Your task to perform on an android device: delete the emails in spam in the gmail app Image 0: 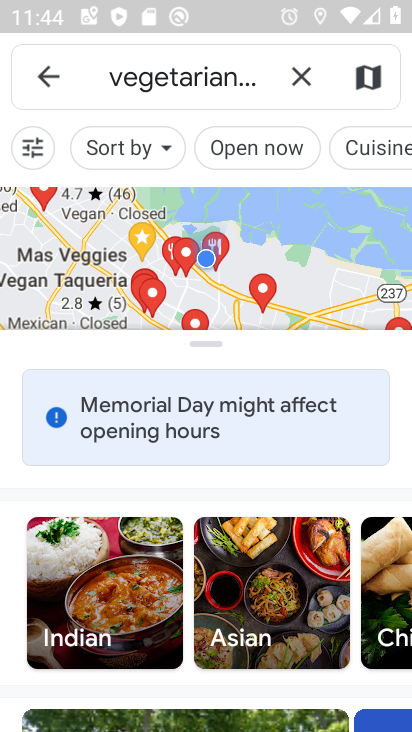
Step 0: press home button
Your task to perform on an android device: delete the emails in spam in the gmail app Image 1: 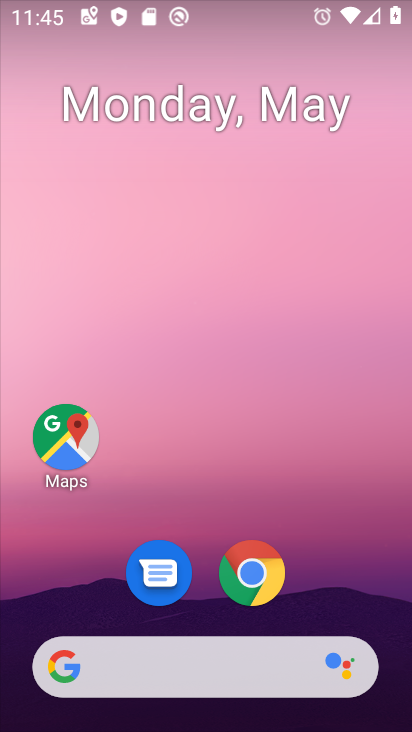
Step 1: drag from (132, 726) to (108, 63)
Your task to perform on an android device: delete the emails in spam in the gmail app Image 2: 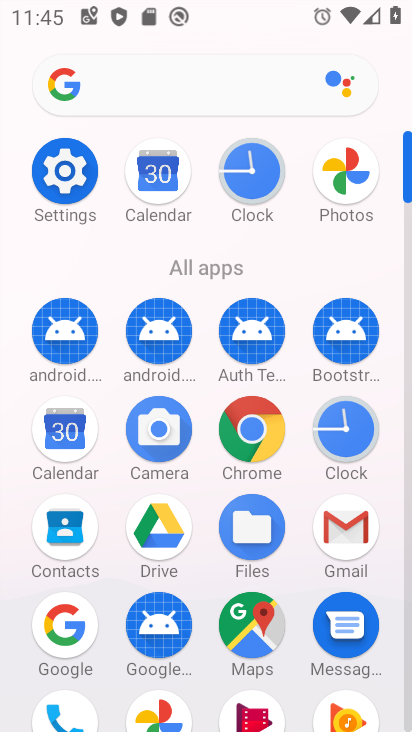
Step 2: click (331, 544)
Your task to perform on an android device: delete the emails in spam in the gmail app Image 3: 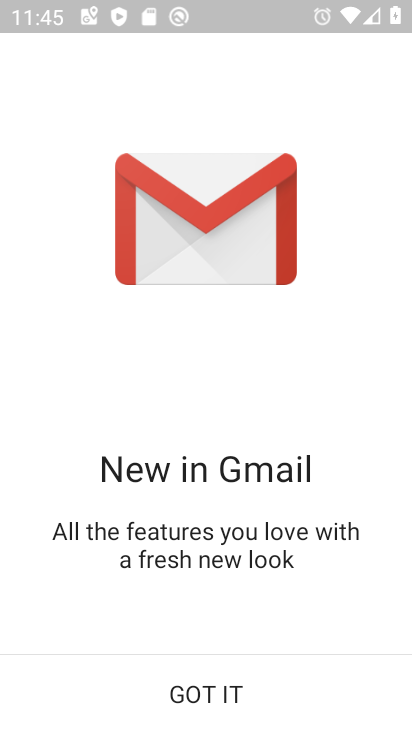
Step 3: click (176, 683)
Your task to perform on an android device: delete the emails in spam in the gmail app Image 4: 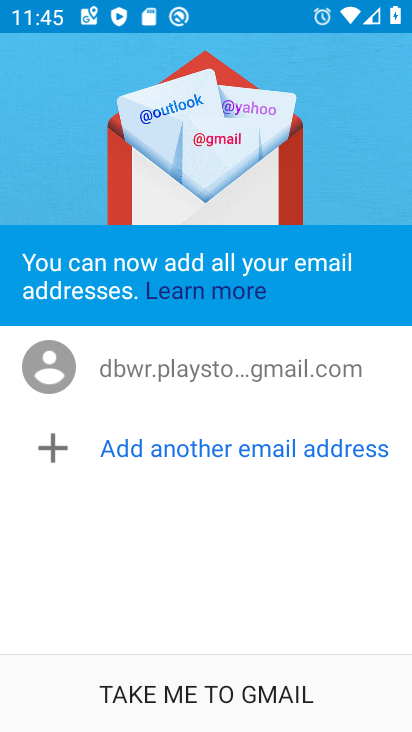
Step 4: click (178, 683)
Your task to perform on an android device: delete the emails in spam in the gmail app Image 5: 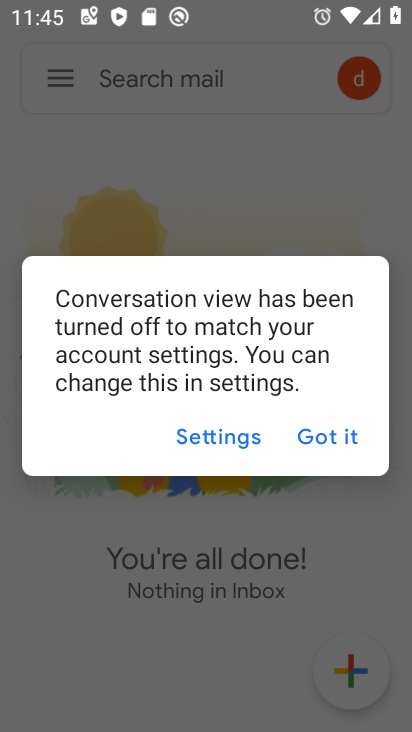
Step 5: click (338, 432)
Your task to perform on an android device: delete the emails in spam in the gmail app Image 6: 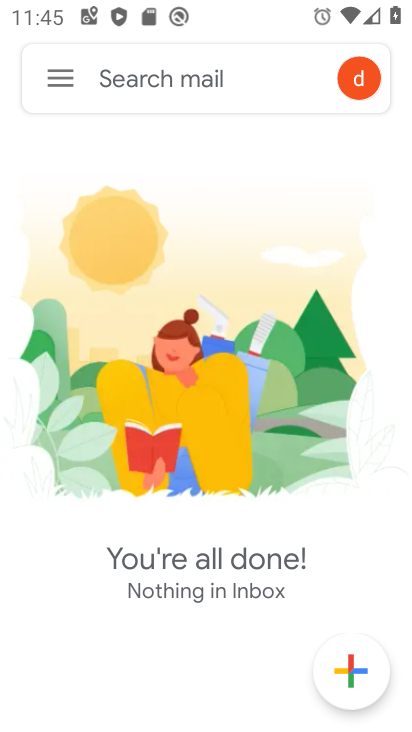
Step 6: click (58, 87)
Your task to perform on an android device: delete the emails in spam in the gmail app Image 7: 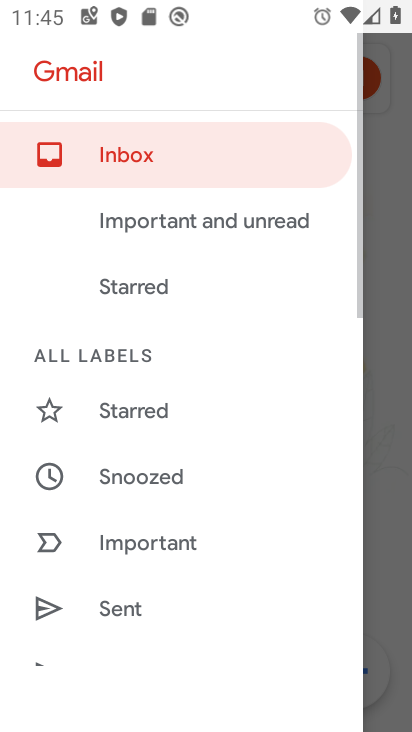
Step 7: drag from (123, 591) to (195, 267)
Your task to perform on an android device: delete the emails in spam in the gmail app Image 8: 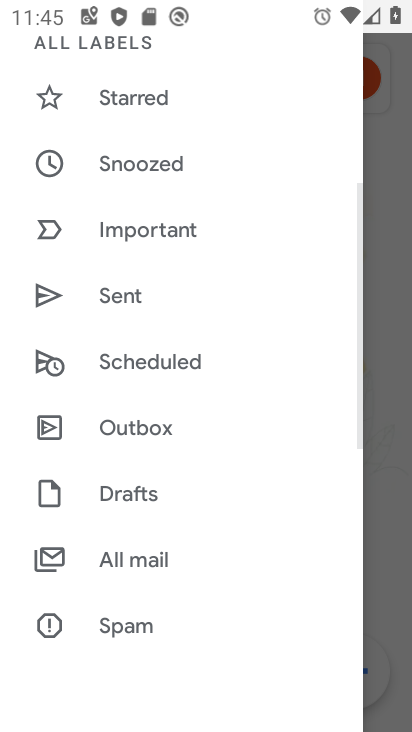
Step 8: click (100, 630)
Your task to perform on an android device: delete the emails in spam in the gmail app Image 9: 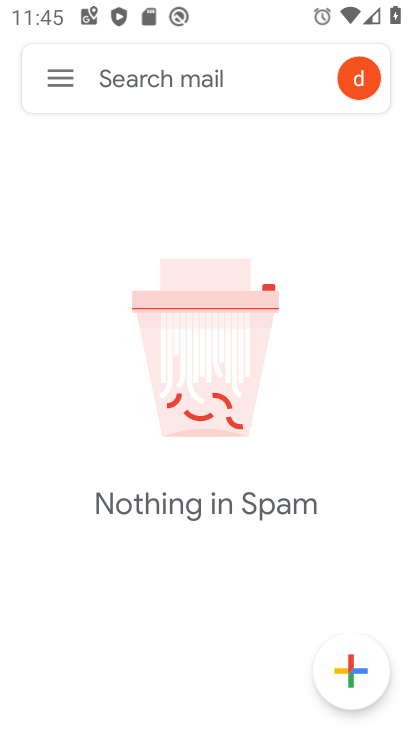
Step 9: task complete